Your task to perform on an android device: Search for "rayovac triple a" on target.com, select the first entry, add it to the cart, then select checkout. Image 0: 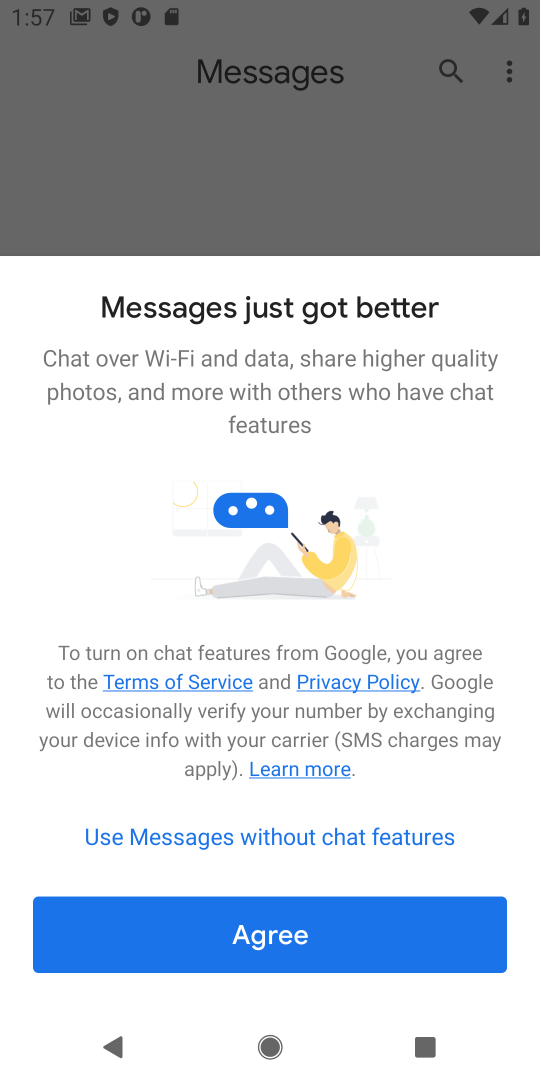
Step 0: press home button
Your task to perform on an android device: Search for "rayovac triple a" on target.com, select the first entry, add it to the cart, then select checkout. Image 1: 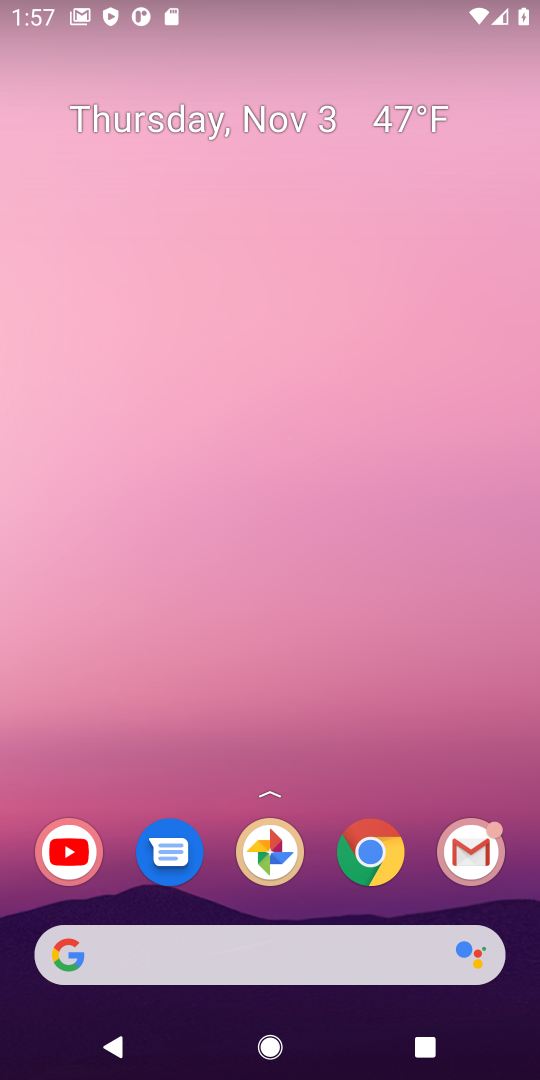
Step 1: click (360, 856)
Your task to perform on an android device: Search for "rayovac triple a" on target.com, select the first entry, add it to the cart, then select checkout. Image 2: 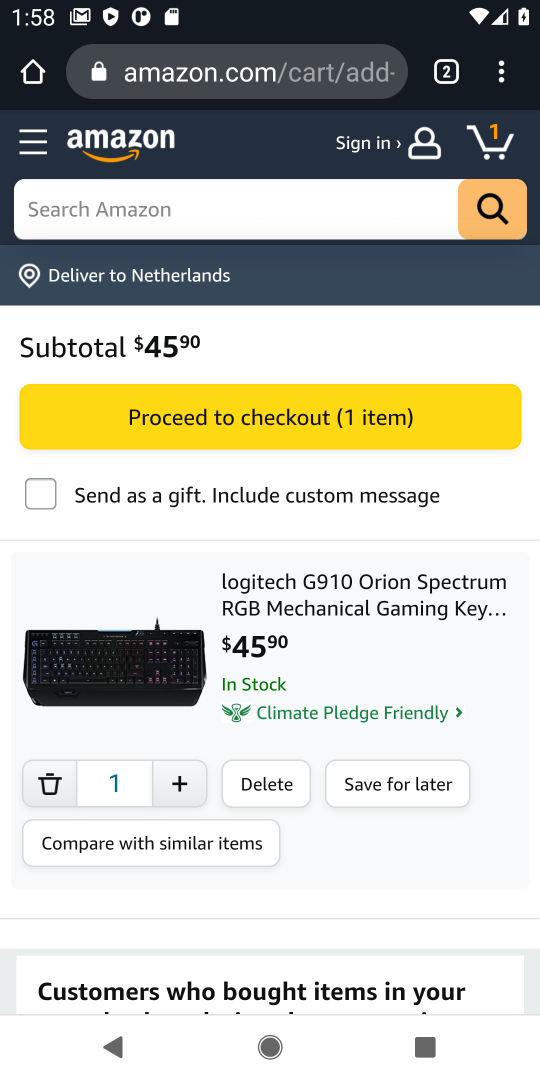
Step 2: click (253, 67)
Your task to perform on an android device: Search for "rayovac triple a" on target.com, select the first entry, add it to the cart, then select checkout. Image 3: 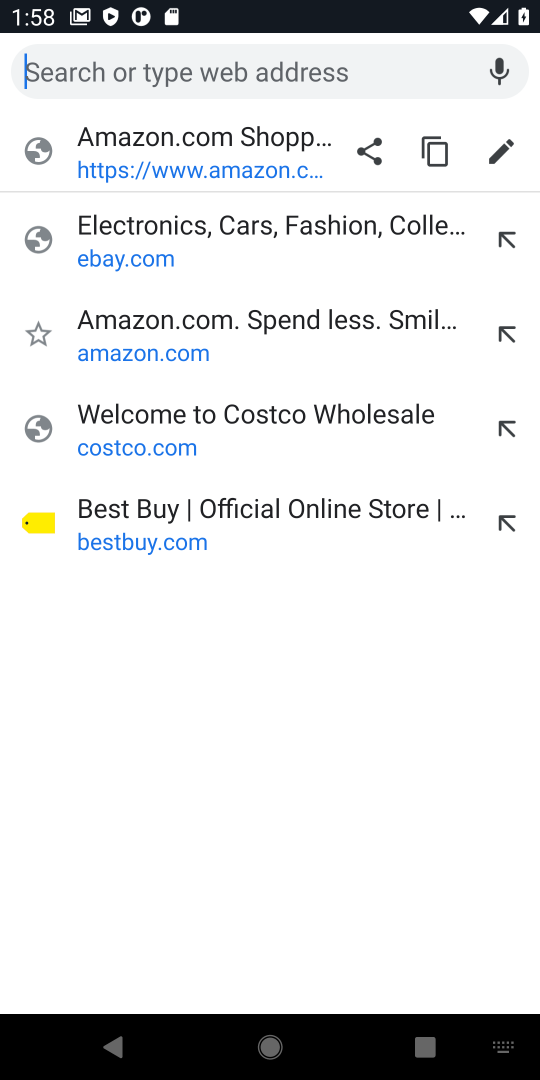
Step 3: type "target.com"
Your task to perform on an android device: Search for "rayovac triple a" on target.com, select the first entry, add it to the cart, then select checkout. Image 4: 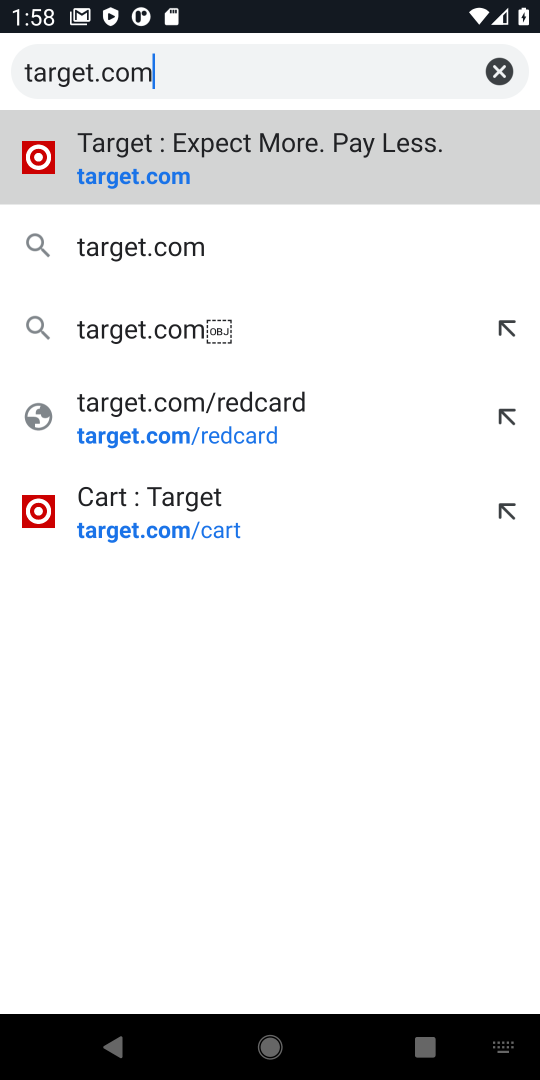
Step 4: click (135, 187)
Your task to perform on an android device: Search for "rayovac triple a" on target.com, select the first entry, add it to the cart, then select checkout. Image 5: 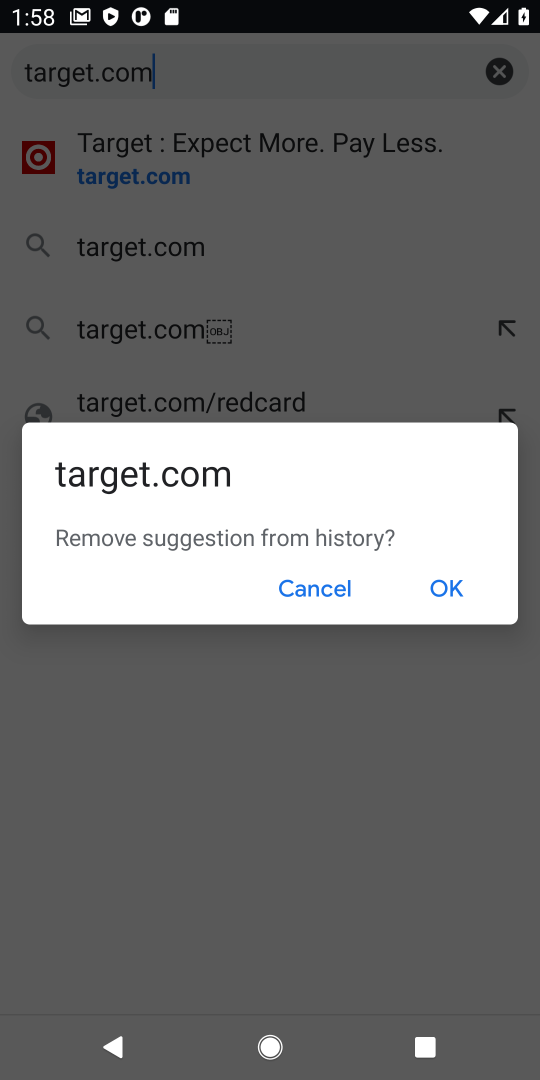
Step 5: click (288, 583)
Your task to perform on an android device: Search for "rayovac triple a" on target.com, select the first entry, add it to the cart, then select checkout. Image 6: 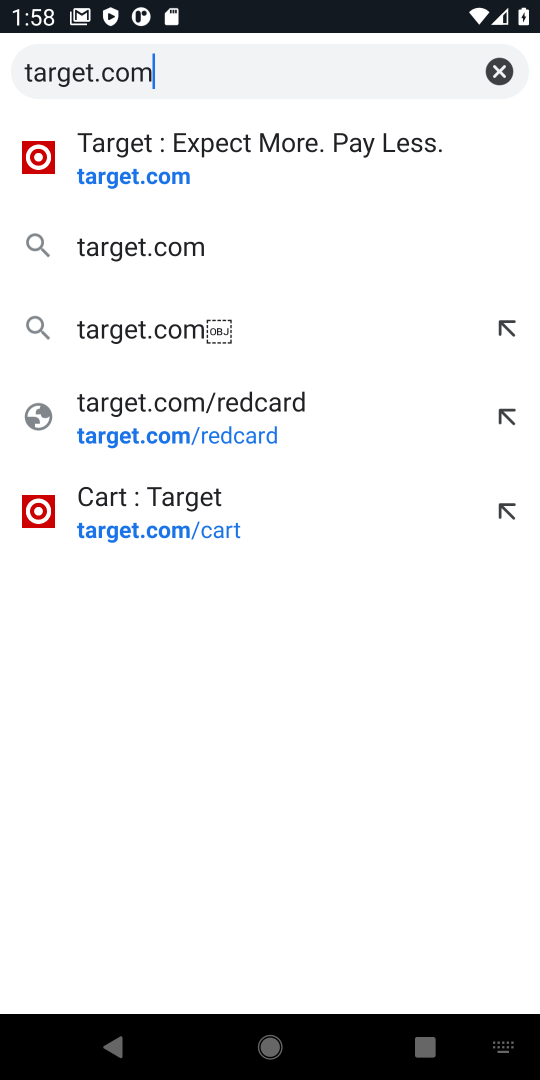
Step 6: click (112, 192)
Your task to perform on an android device: Search for "rayovac triple a" on target.com, select the first entry, add it to the cart, then select checkout. Image 7: 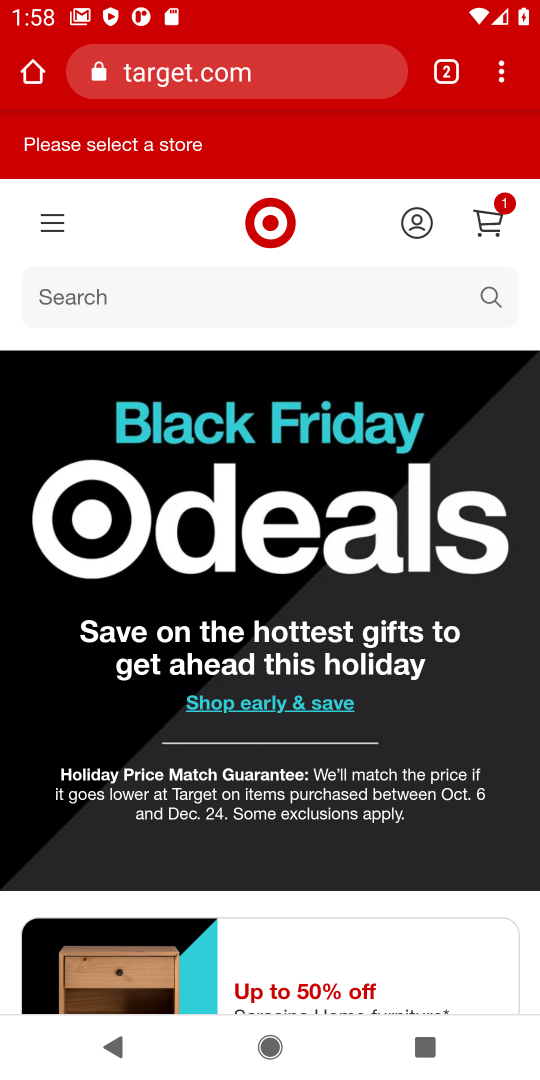
Step 7: click (477, 307)
Your task to perform on an android device: Search for "rayovac triple a" on target.com, select the first entry, add it to the cart, then select checkout. Image 8: 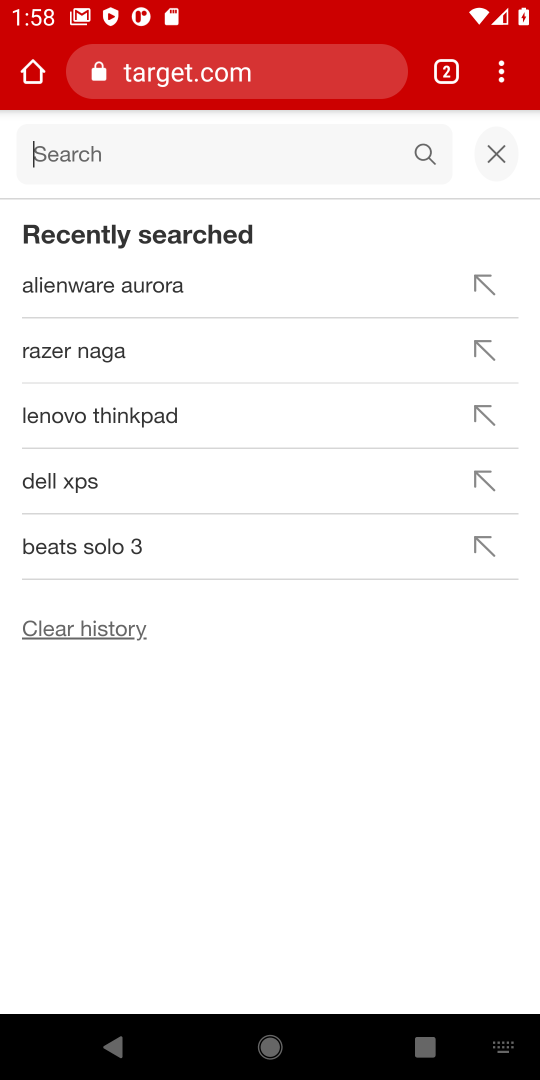
Step 8: type "rayovac triple a"
Your task to perform on an android device: Search for "rayovac triple a" on target.com, select the first entry, add it to the cart, then select checkout. Image 9: 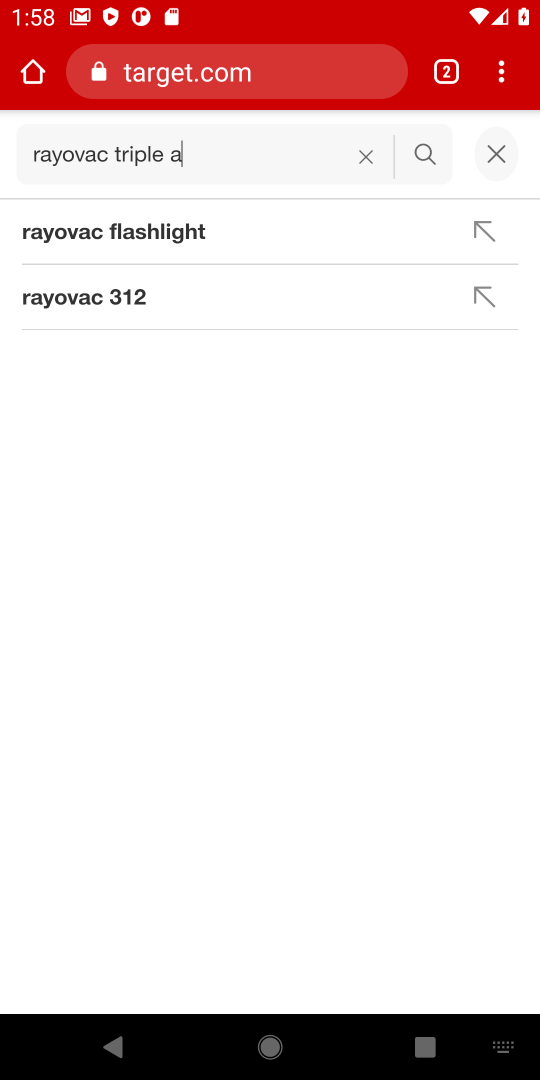
Step 9: click (422, 153)
Your task to perform on an android device: Search for "rayovac triple a" on target.com, select the first entry, add it to the cart, then select checkout. Image 10: 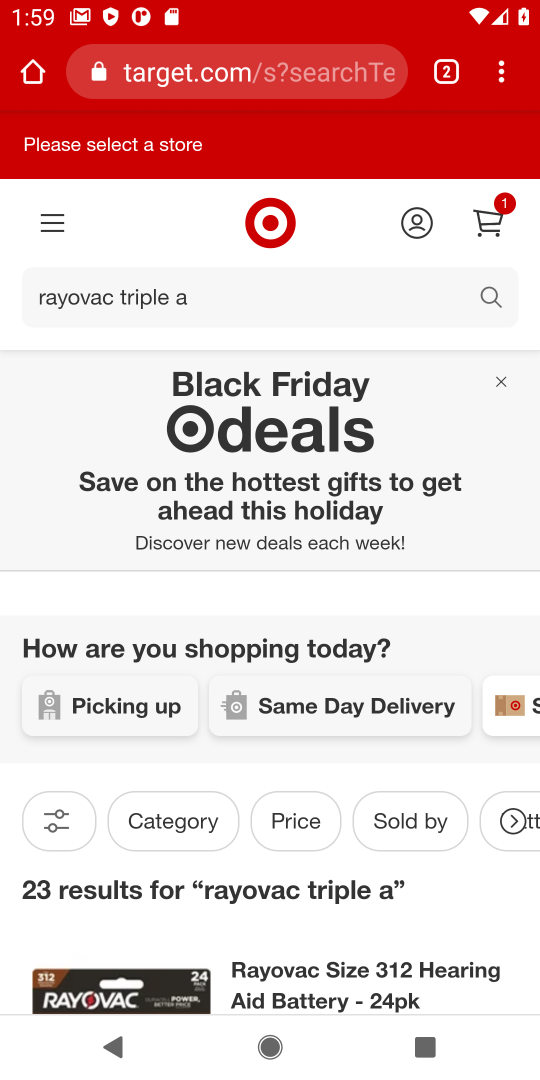
Step 10: task complete